Your task to perform on an android device: Open ESPN.com Image 0: 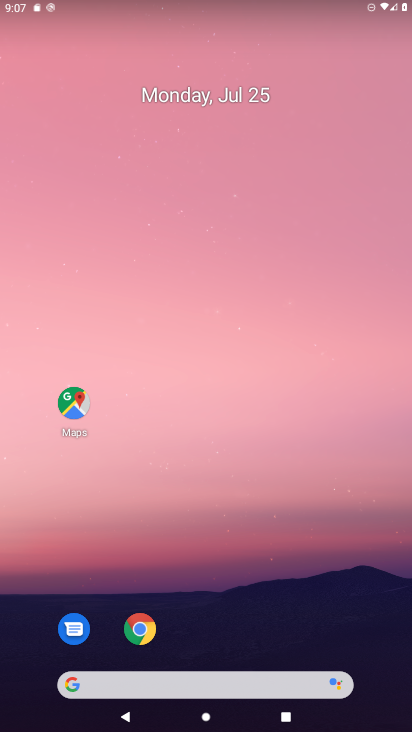
Step 0: click (154, 633)
Your task to perform on an android device: Open ESPN.com Image 1: 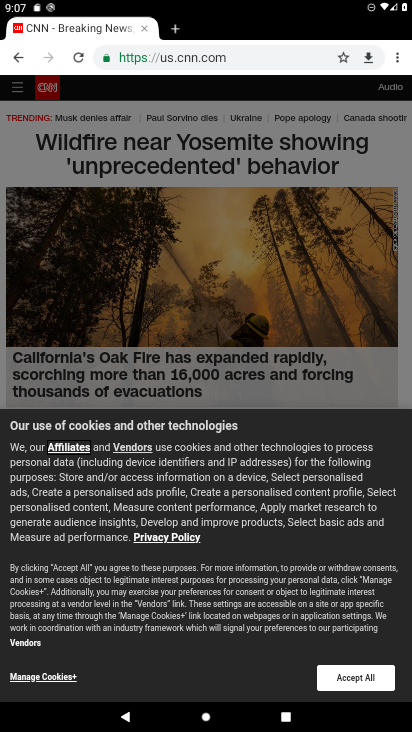
Step 1: click (188, 61)
Your task to perform on an android device: Open ESPN.com Image 2: 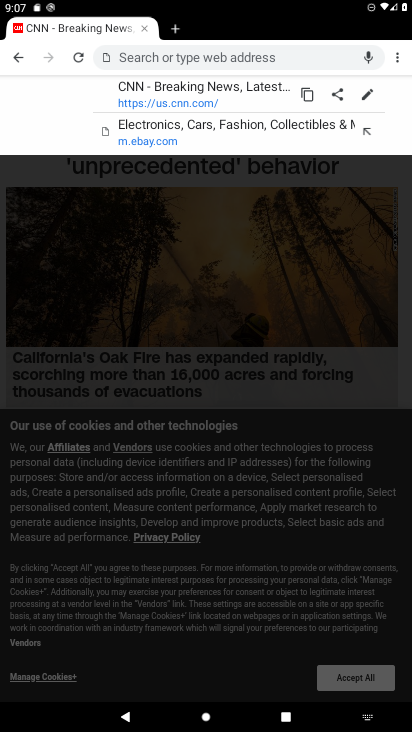
Step 2: click (150, 25)
Your task to perform on an android device: Open ESPN.com Image 3: 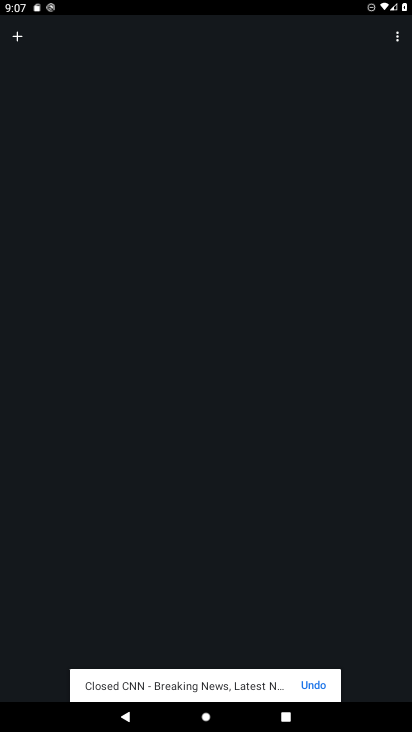
Step 3: click (24, 38)
Your task to perform on an android device: Open ESPN.com Image 4: 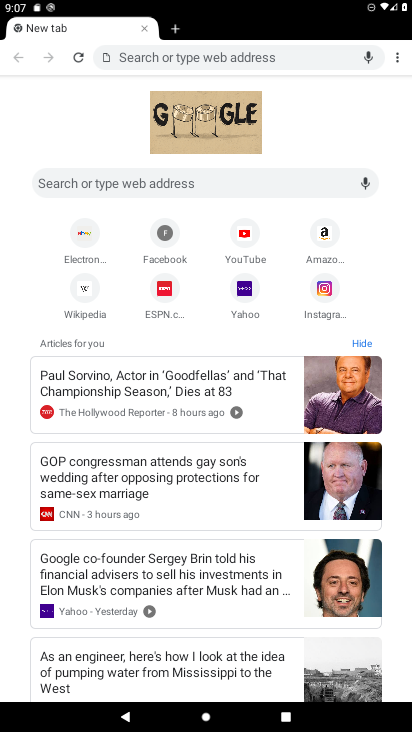
Step 4: click (160, 293)
Your task to perform on an android device: Open ESPN.com Image 5: 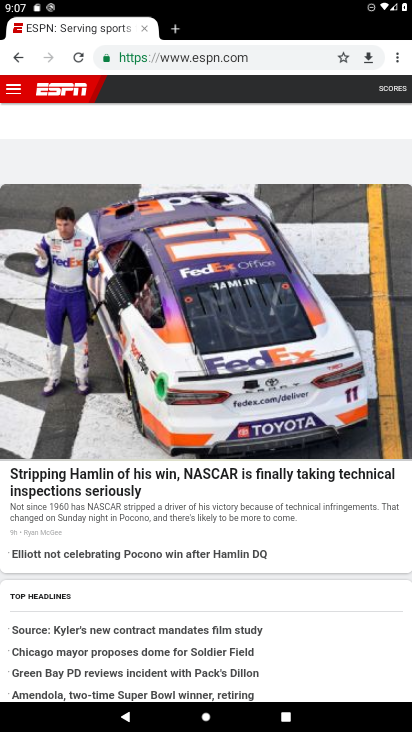
Step 5: task complete